Your task to perform on an android device: open app "AliExpress" Image 0: 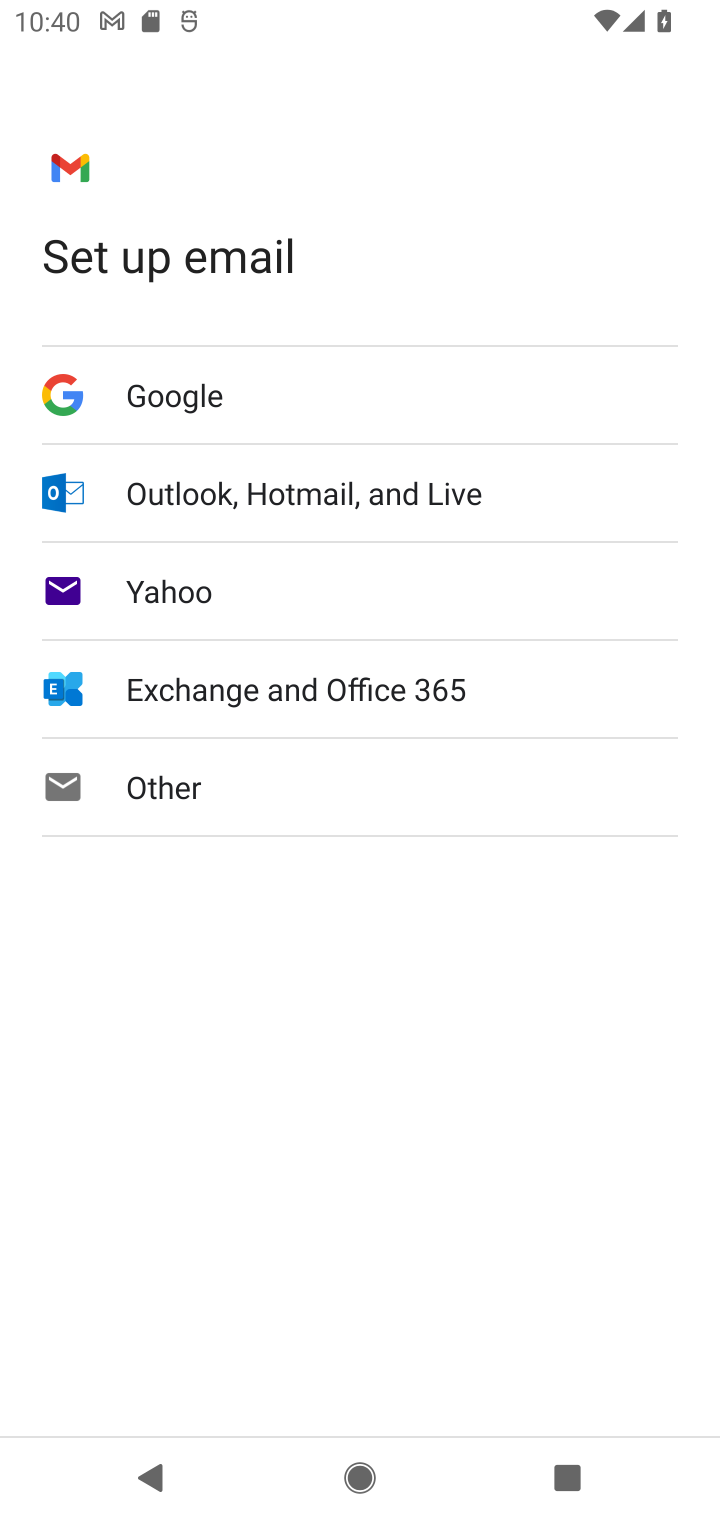
Step 0: press home button
Your task to perform on an android device: open app "AliExpress" Image 1: 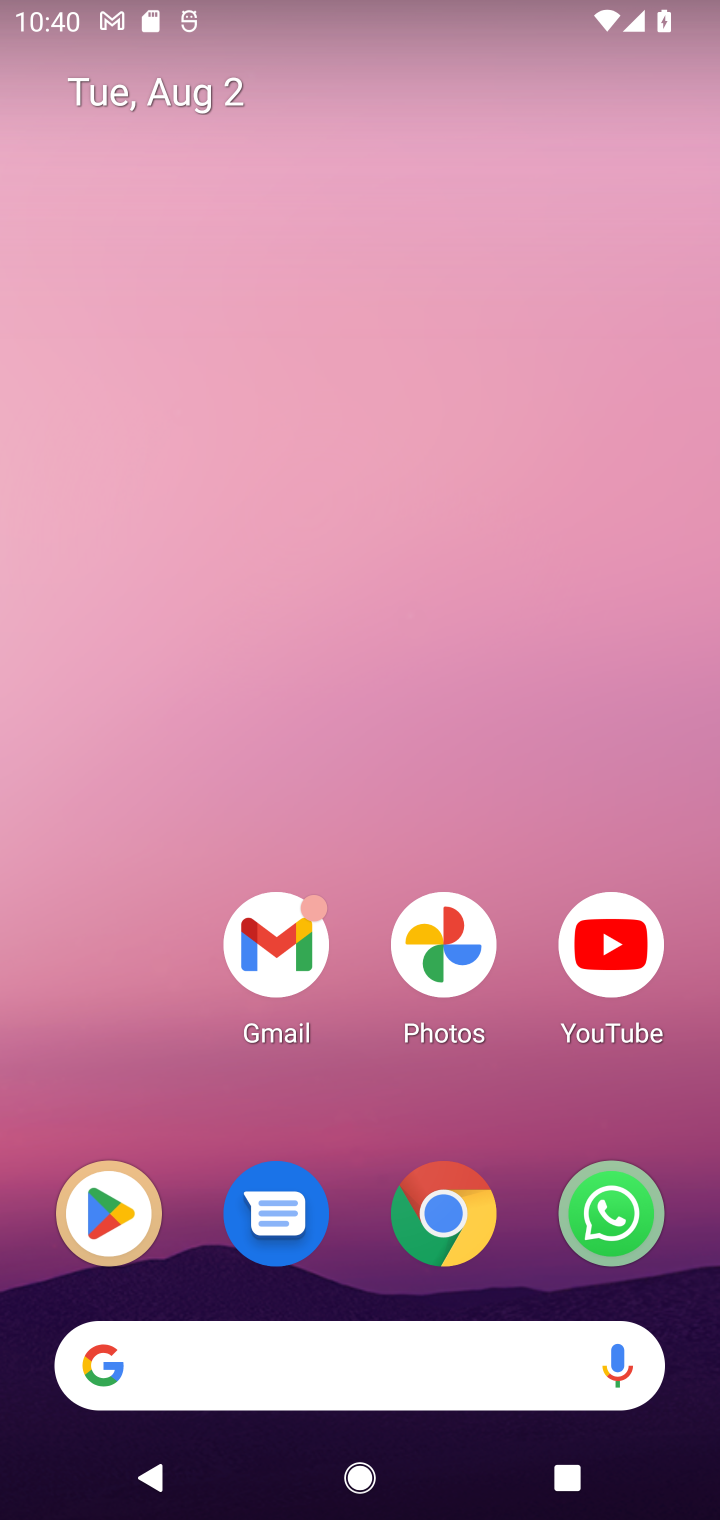
Step 1: click (360, 519)
Your task to perform on an android device: open app "AliExpress" Image 2: 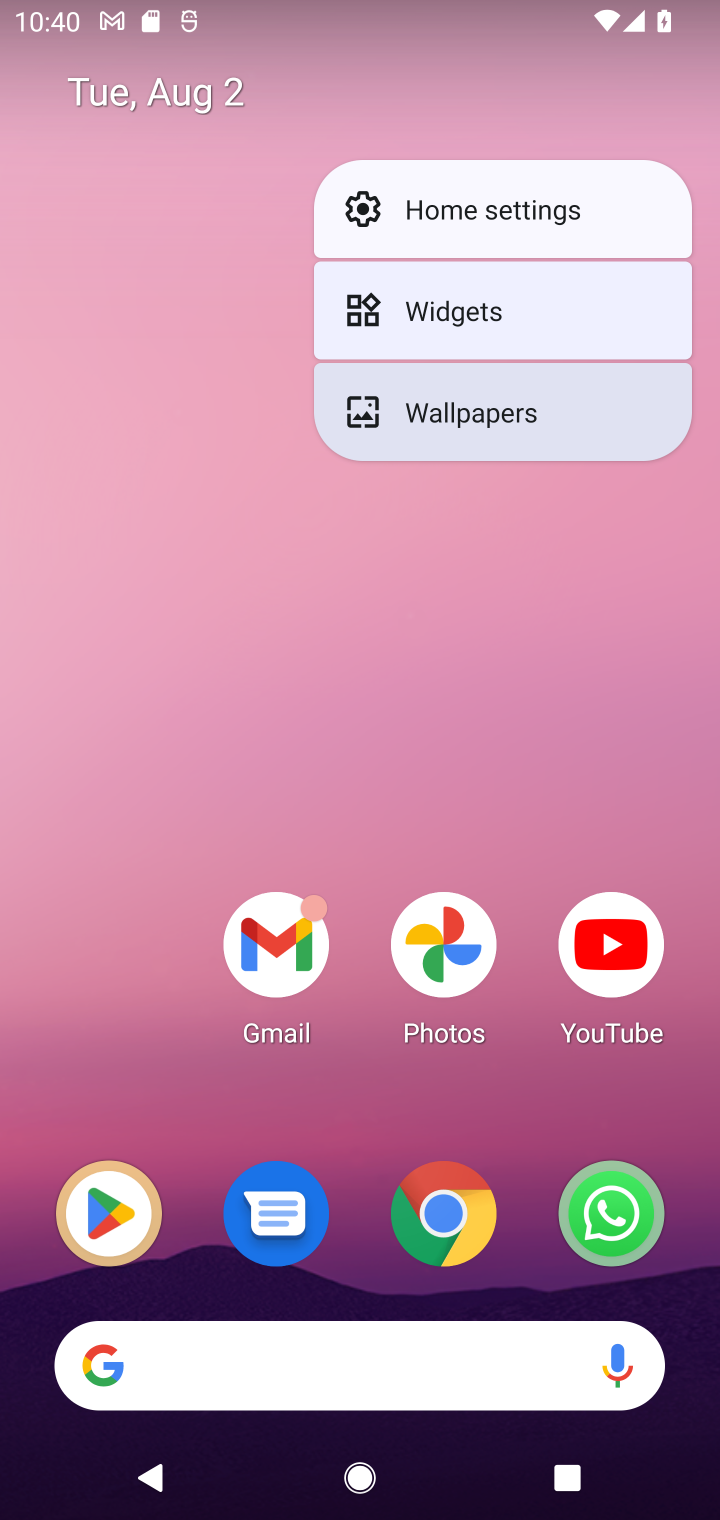
Step 2: drag from (230, 1089) to (246, 361)
Your task to perform on an android device: open app "AliExpress" Image 3: 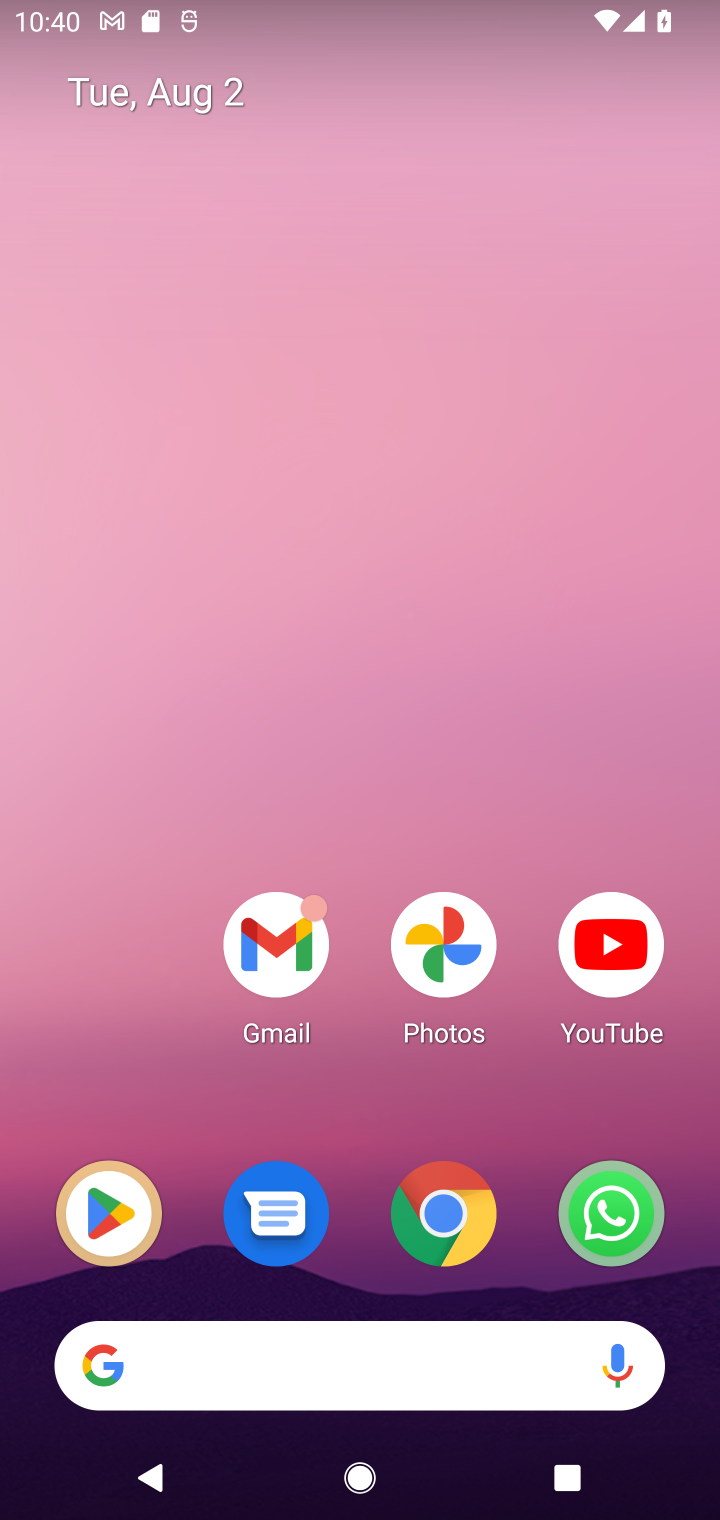
Step 3: click (114, 1204)
Your task to perform on an android device: open app "AliExpress" Image 4: 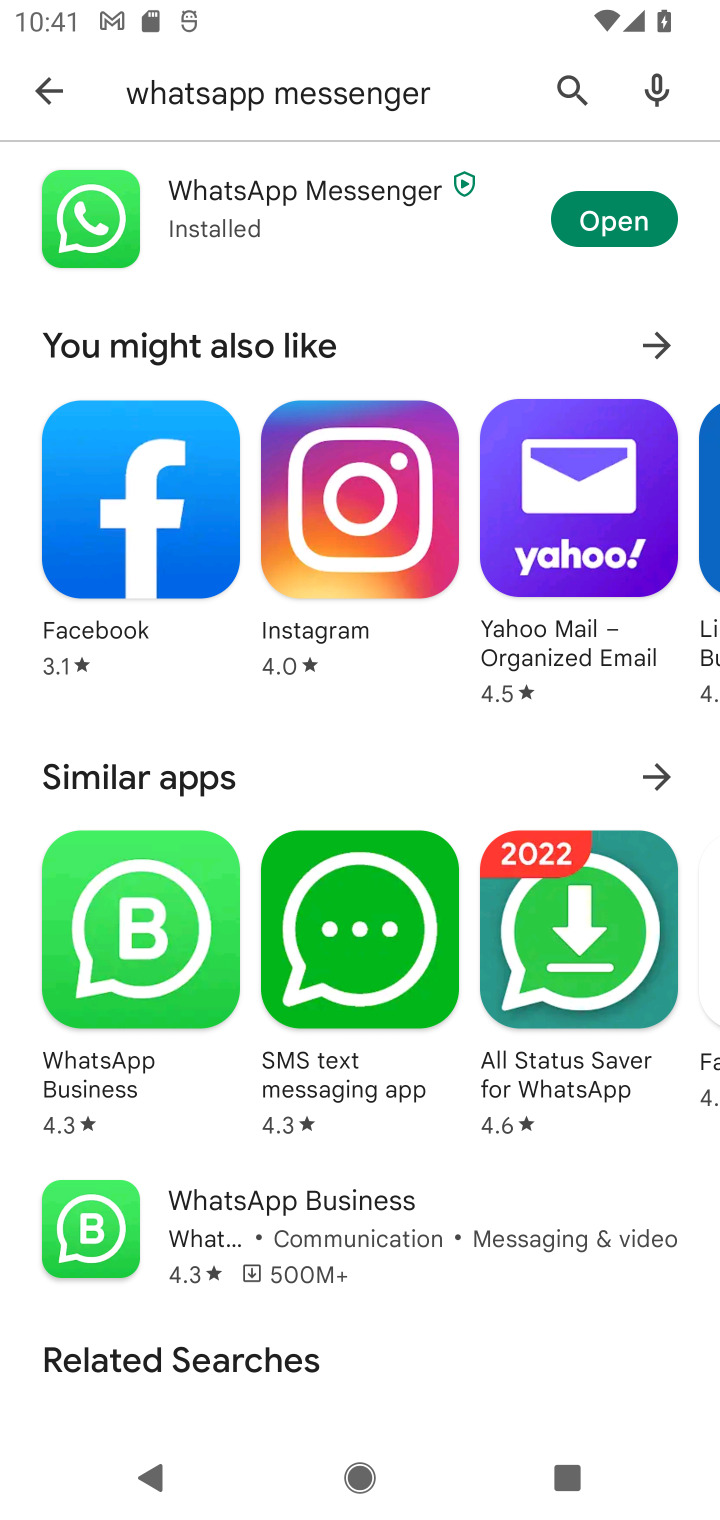
Step 4: click (49, 89)
Your task to perform on an android device: open app "AliExpress" Image 5: 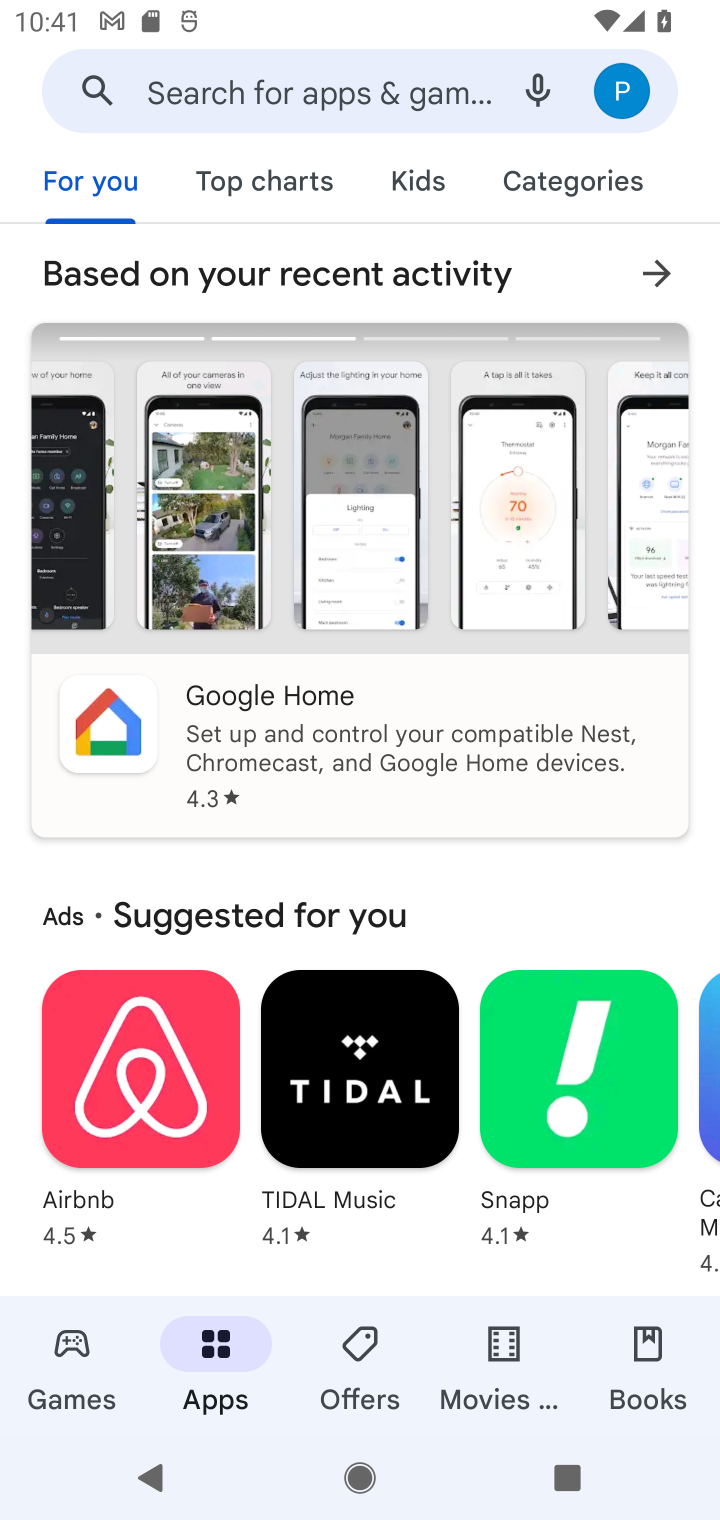
Step 5: click (227, 90)
Your task to perform on an android device: open app "AliExpress" Image 6: 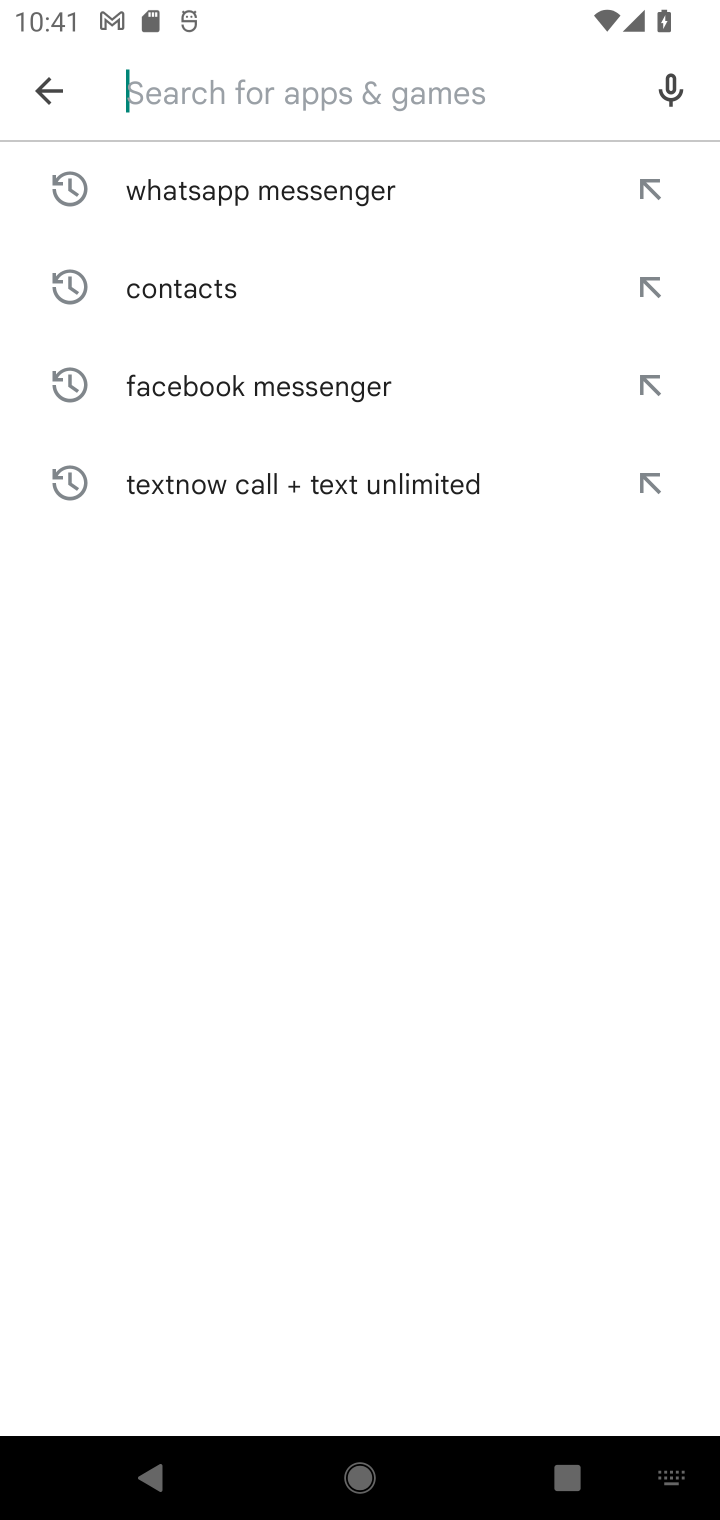
Step 6: type "AliExpress"
Your task to perform on an android device: open app "AliExpress" Image 7: 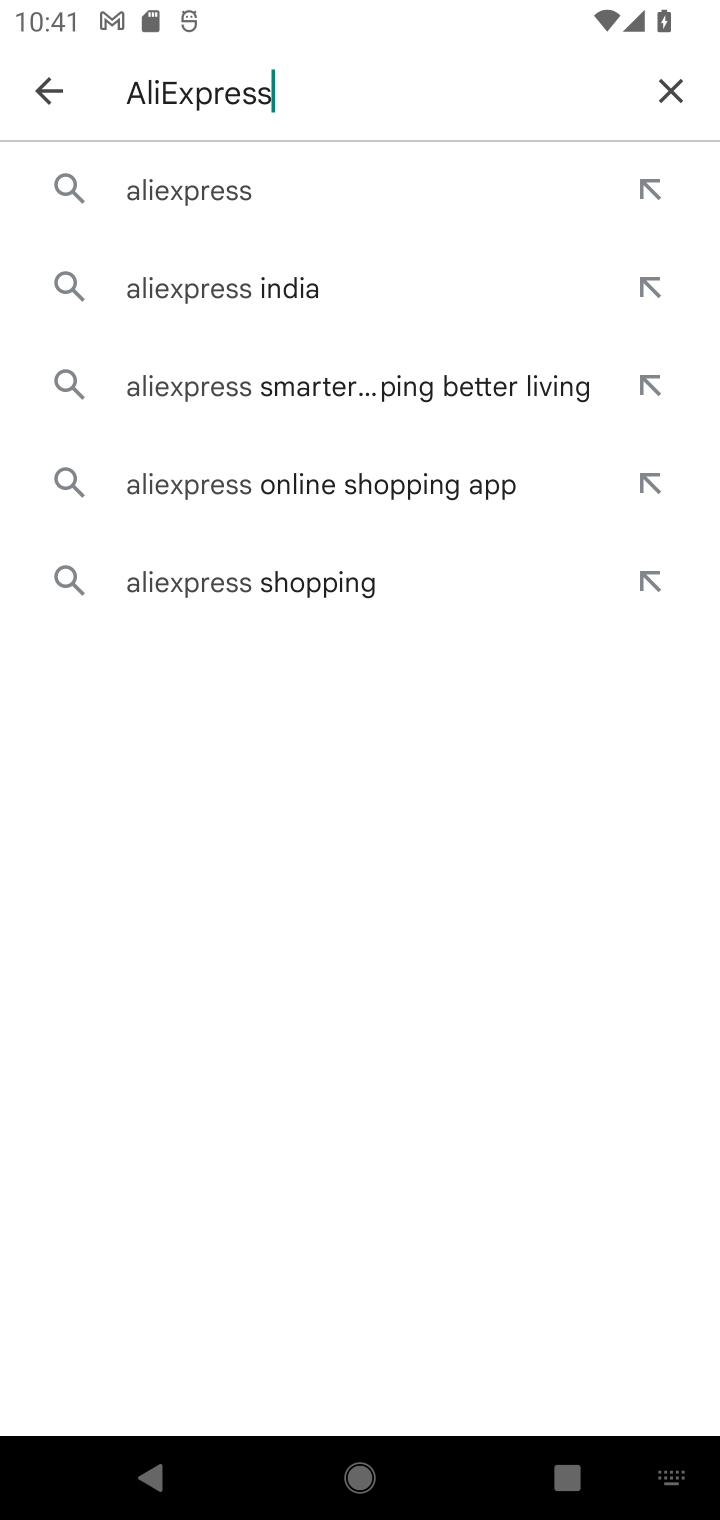
Step 7: click (153, 188)
Your task to perform on an android device: open app "AliExpress" Image 8: 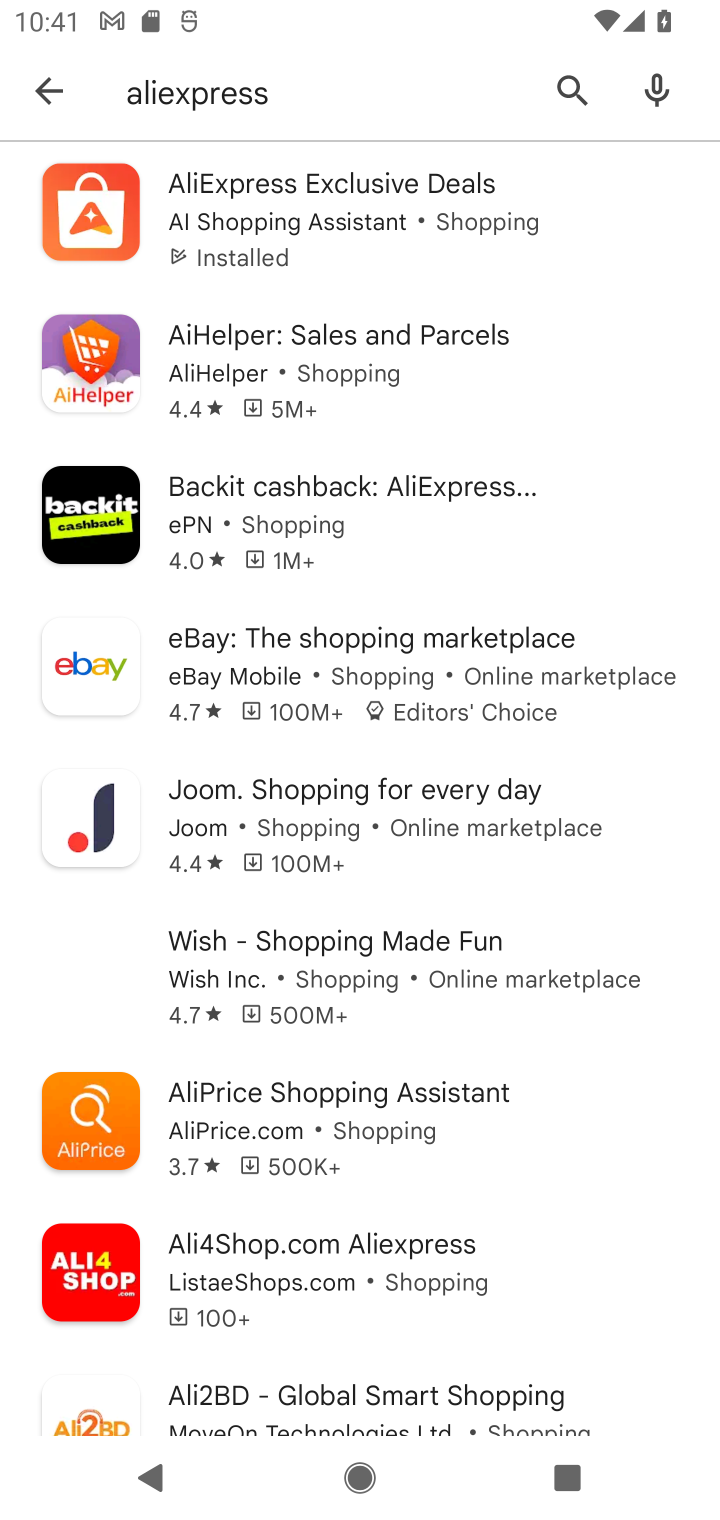
Step 8: click (317, 222)
Your task to perform on an android device: open app "AliExpress" Image 9: 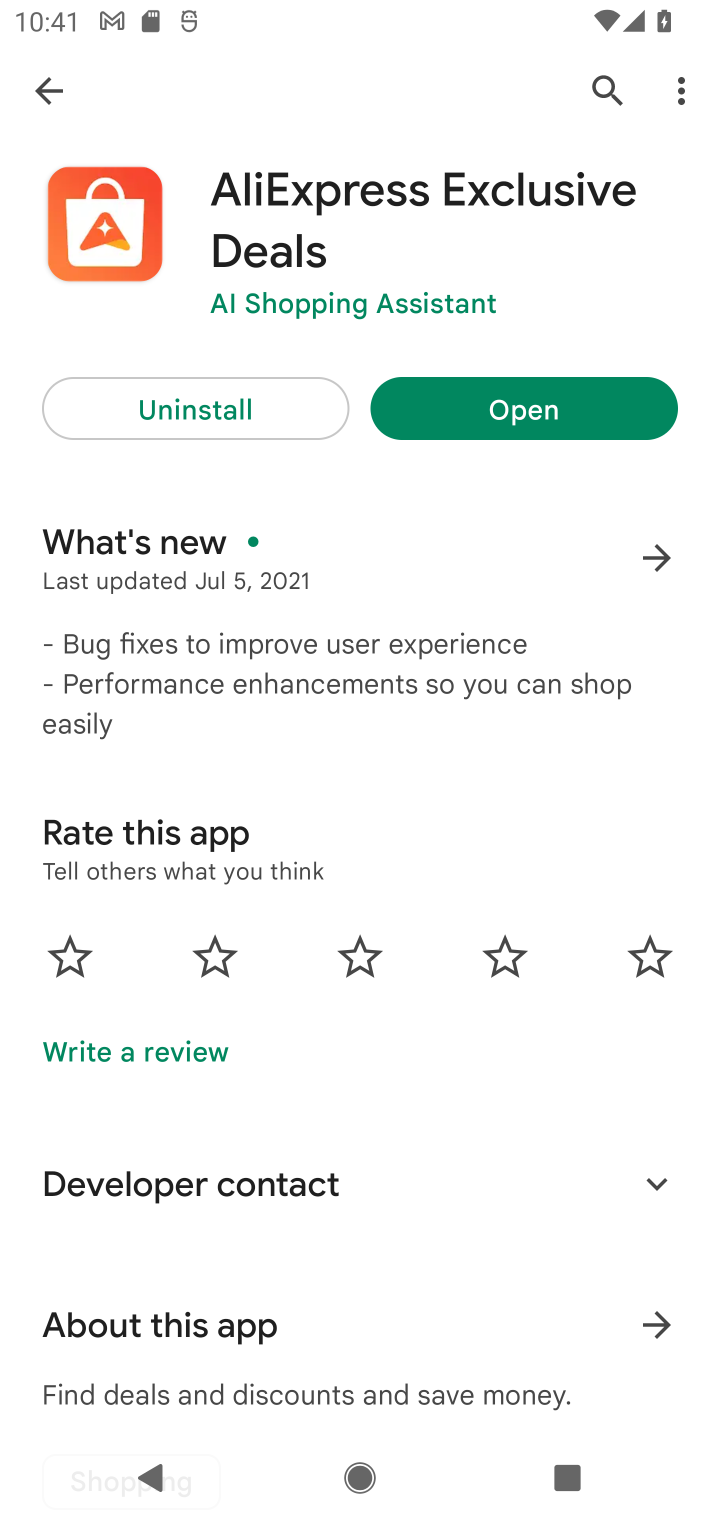
Step 9: click (534, 420)
Your task to perform on an android device: open app "AliExpress" Image 10: 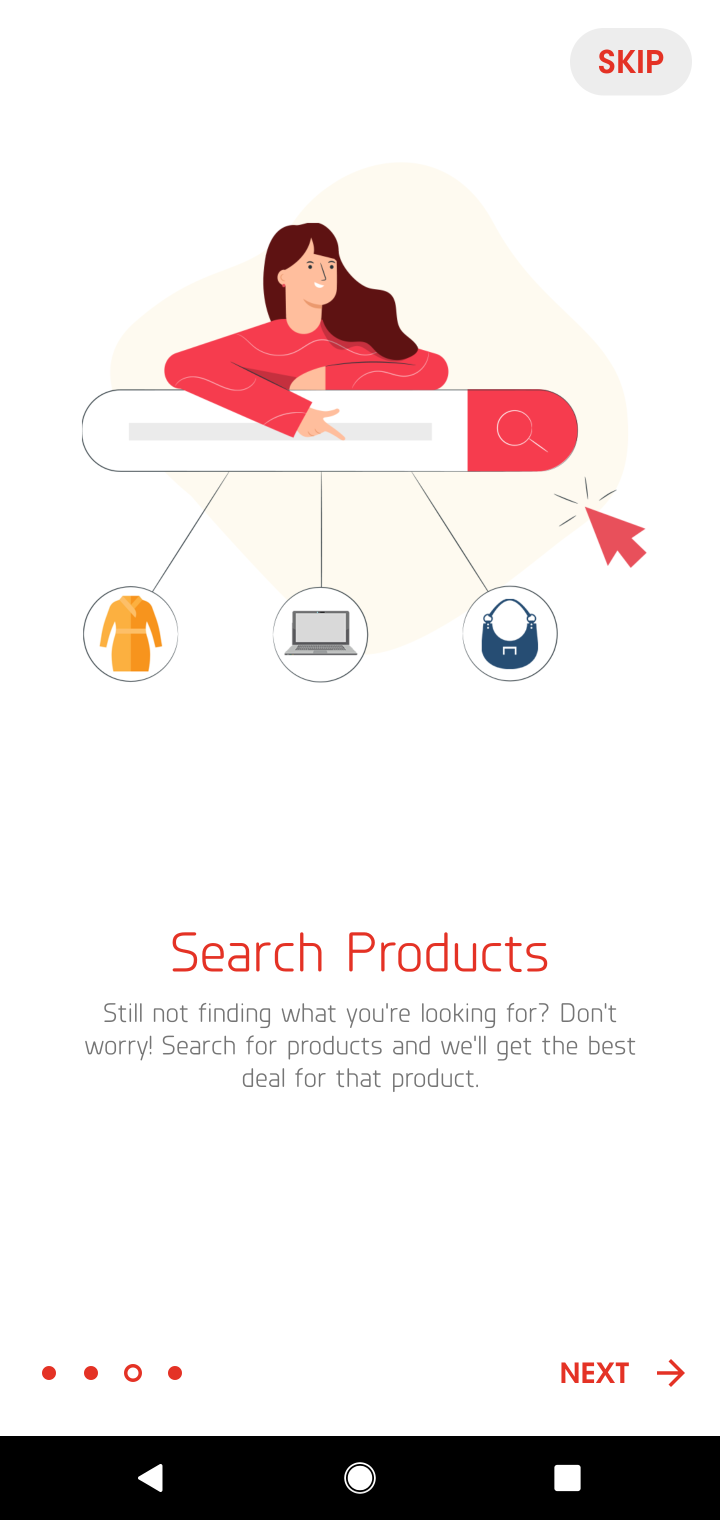
Step 10: task complete